Your task to perform on an android device: Go to location settings Image 0: 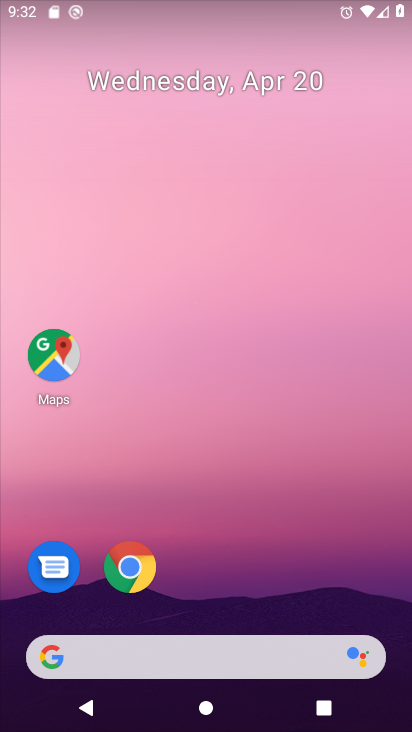
Step 0: drag from (344, 559) to (380, 183)
Your task to perform on an android device: Go to location settings Image 1: 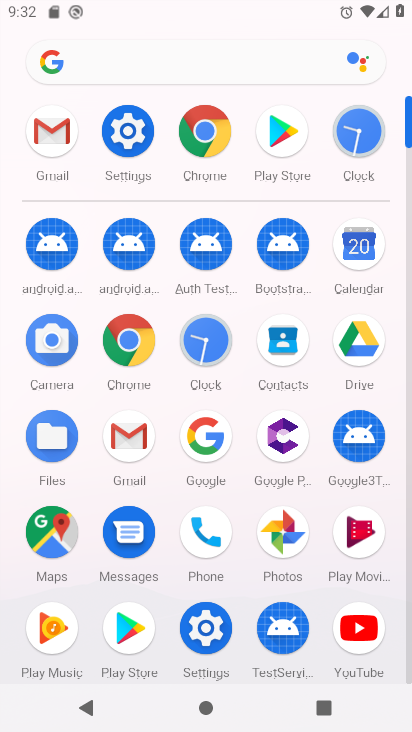
Step 1: click (118, 145)
Your task to perform on an android device: Go to location settings Image 2: 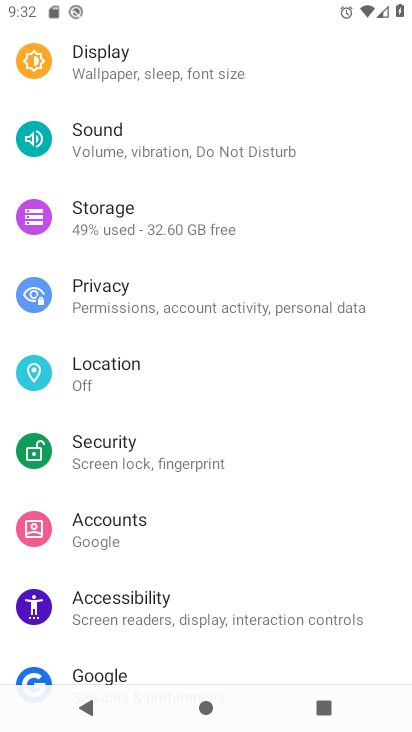
Step 2: drag from (340, 501) to (339, 343)
Your task to perform on an android device: Go to location settings Image 3: 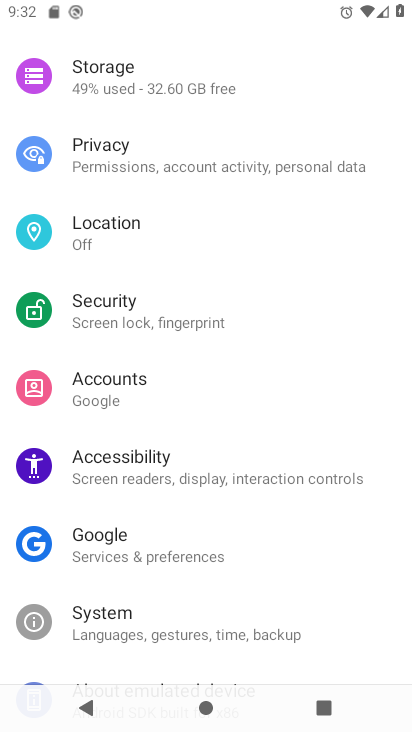
Step 3: drag from (348, 584) to (341, 388)
Your task to perform on an android device: Go to location settings Image 4: 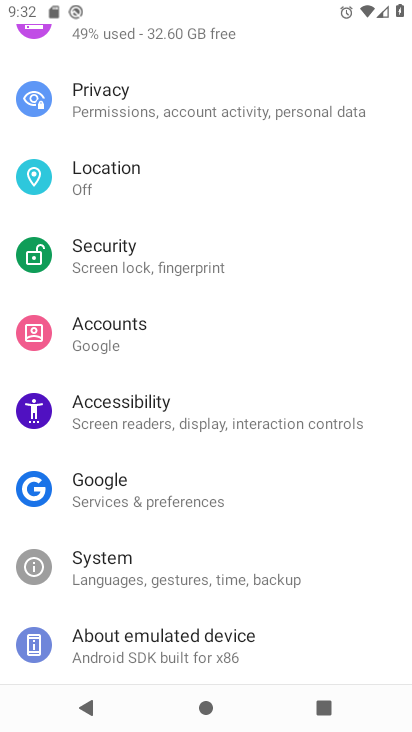
Step 4: drag from (328, 260) to (326, 496)
Your task to perform on an android device: Go to location settings Image 5: 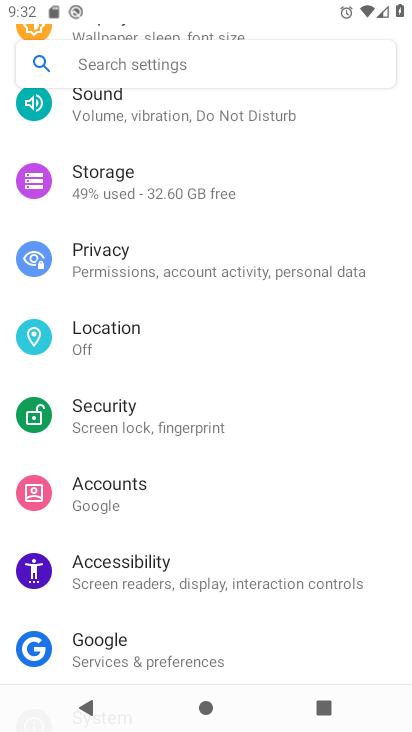
Step 5: click (105, 349)
Your task to perform on an android device: Go to location settings Image 6: 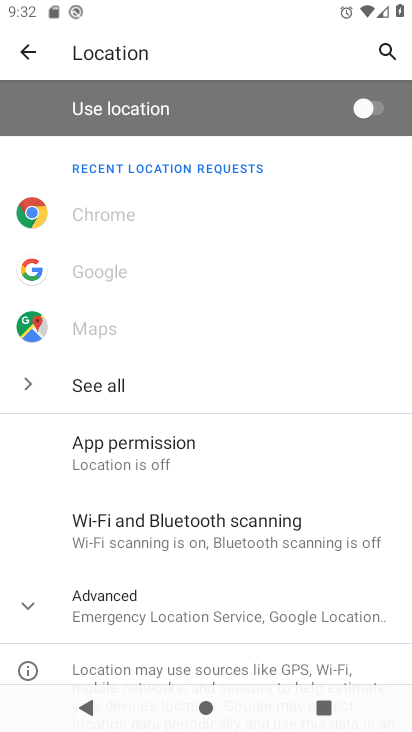
Step 6: task complete